Your task to perform on an android device: Find coffee shops on Maps Image 0: 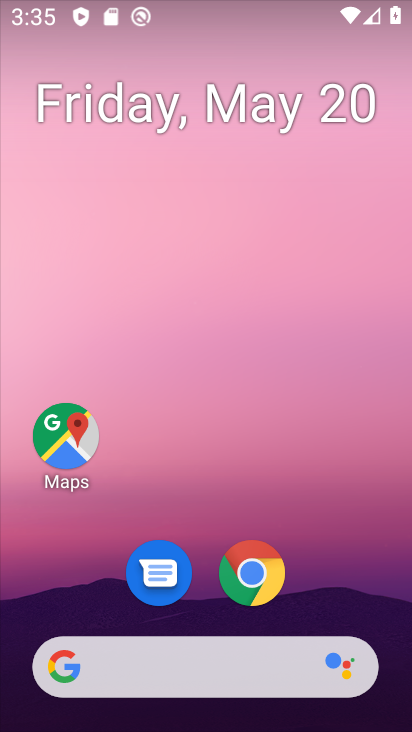
Step 0: click (63, 437)
Your task to perform on an android device: Find coffee shops on Maps Image 1: 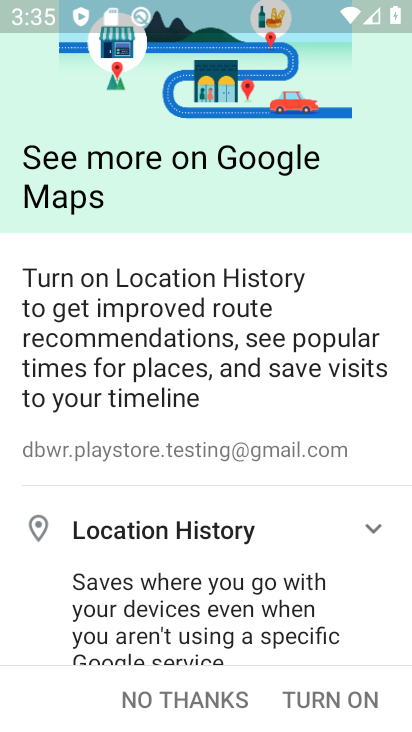
Step 1: click (196, 702)
Your task to perform on an android device: Find coffee shops on Maps Image 2: 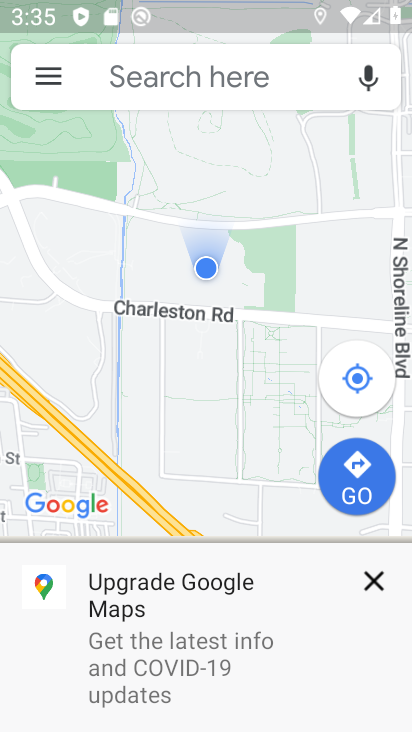
Step 2: click (371, 578)
Your task to perform on an android device: Find coffee shops on Maps Image 3: 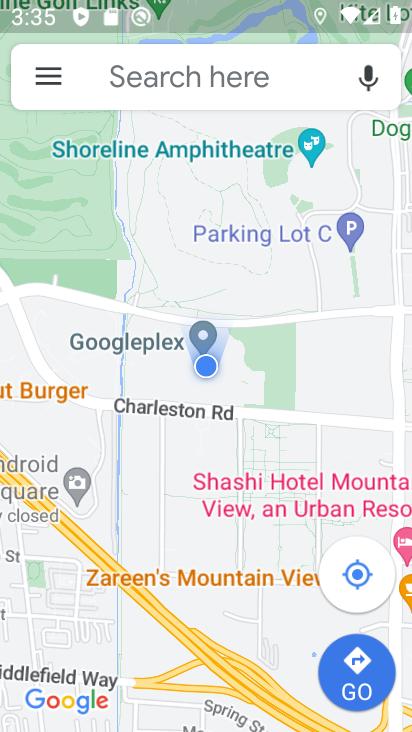
Step 3: click (172, 74)
Your task to perform on an android device: Find coffee shops on Maps Image 4: 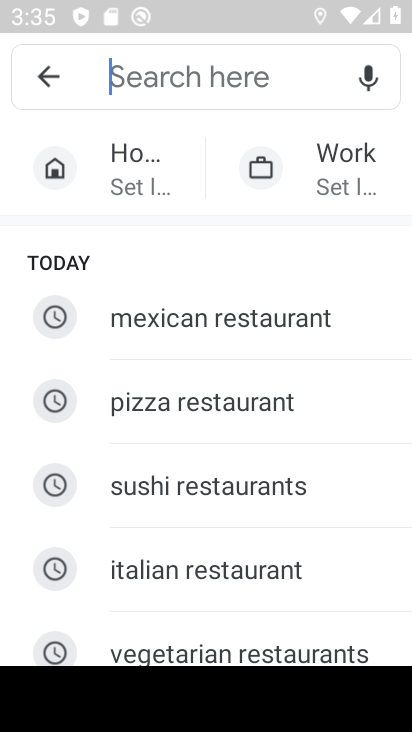
Step 4: type "coffee shop"
Your task to perform on an android device: Find coffee shops on Maps Image 5: 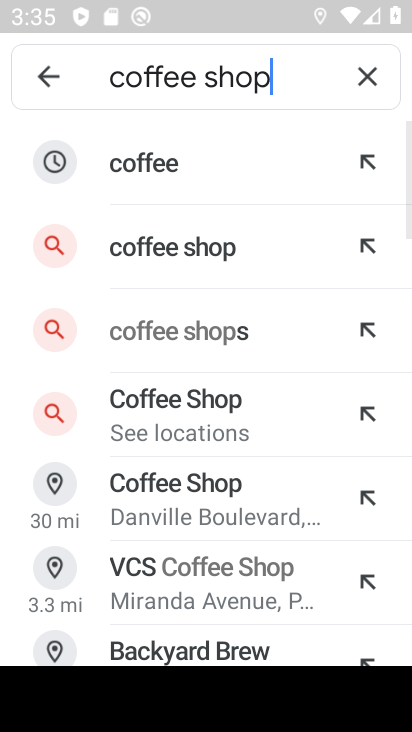
Step 5: click (209, 261)
Your task to perform on an android device: Find coffee shops on Maps Image 6: 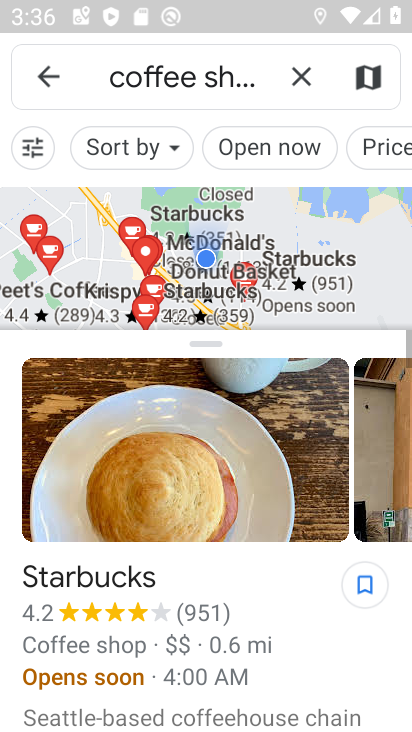
Step 6: task complete